Your task to perform on an android device: turn on showing notifications on the lock screen Image 0: 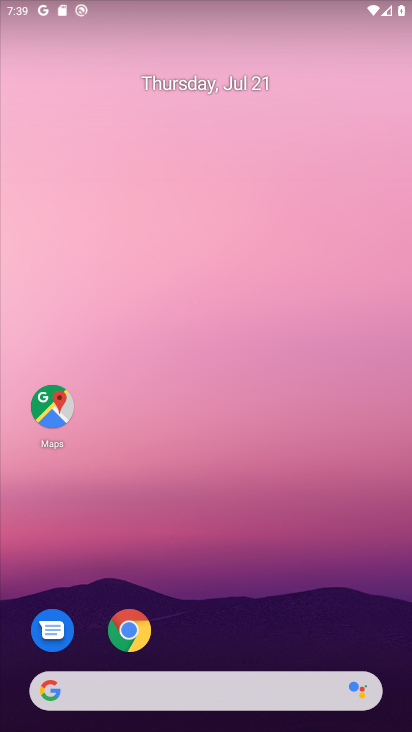
Step 0: drag from (175, 657) to (88, 114)
Your task to perform on an android device: turn on showing notifications on the lock screen Image 1: 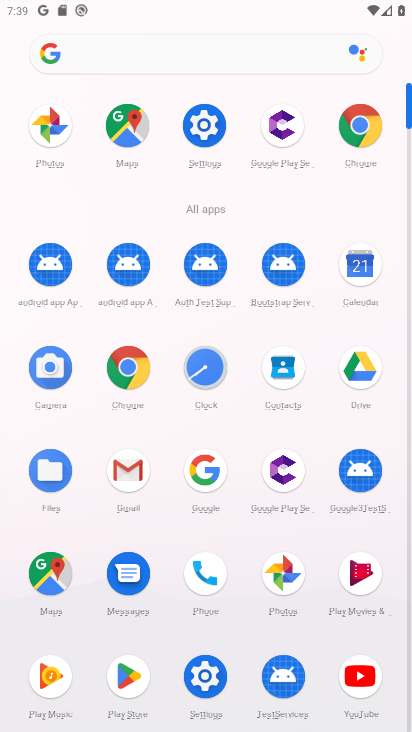
Step 1: click (203, 671)
Your task to perform on an android device: turn on showing notifications on the lock screen Image 2: 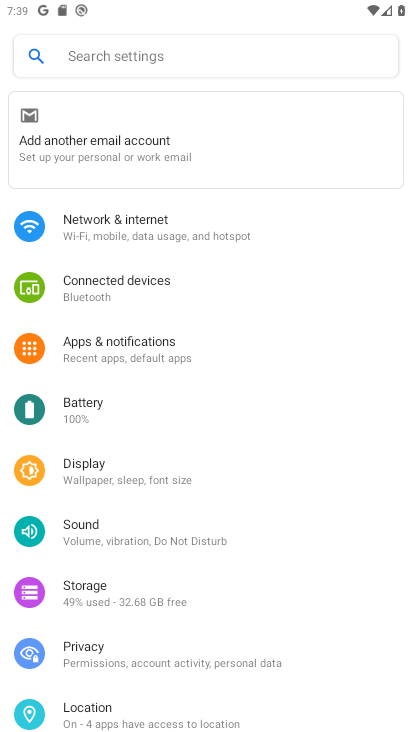
Step 2: click (113, 343)
Your task to perform on an android device: turn on showing notifications on the lock screen Image 3: 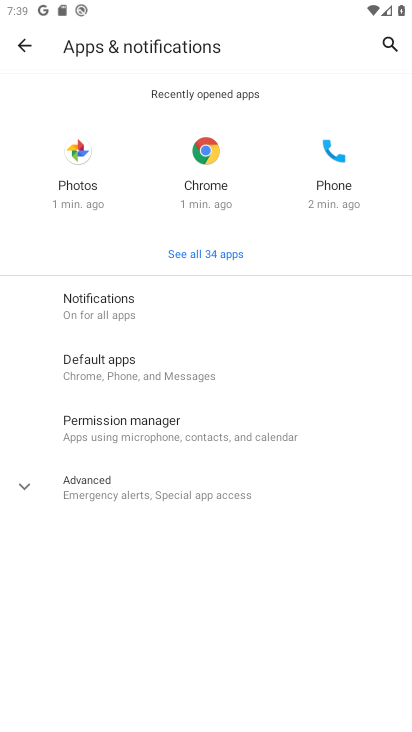
Step 3: click (116, 301)
Your task to perform on an android device: turn on showing notifications on the lock screen Image 4: 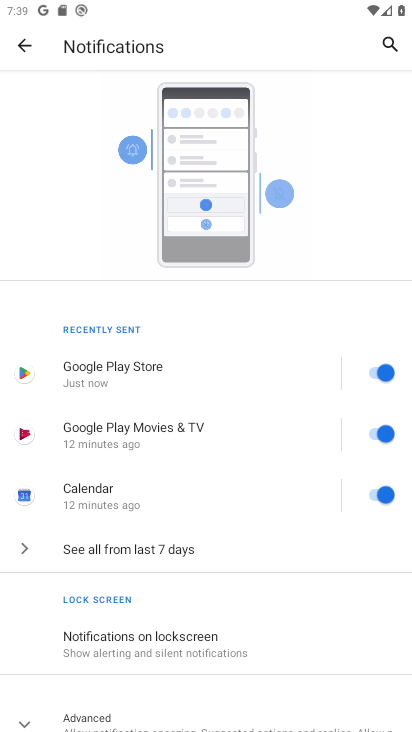
Step 4: click (87, 634)
Your task to perform on an android device: turn on showing notifications on the lock screen Image 5: 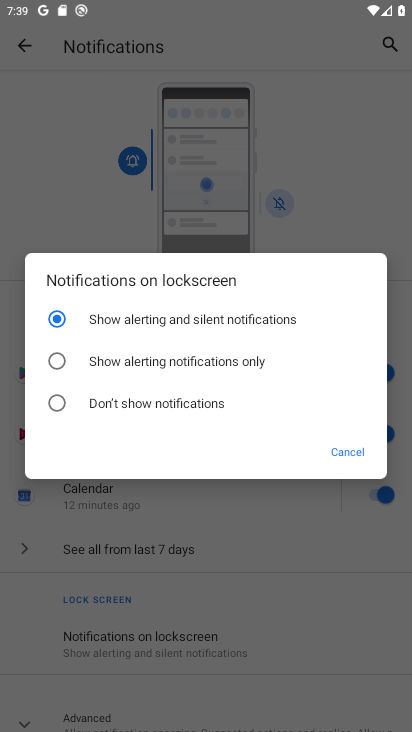
Step 5: click (91, 325)
Your task to perform on an android device: turn on showing notifications on the lock screen Image 6: 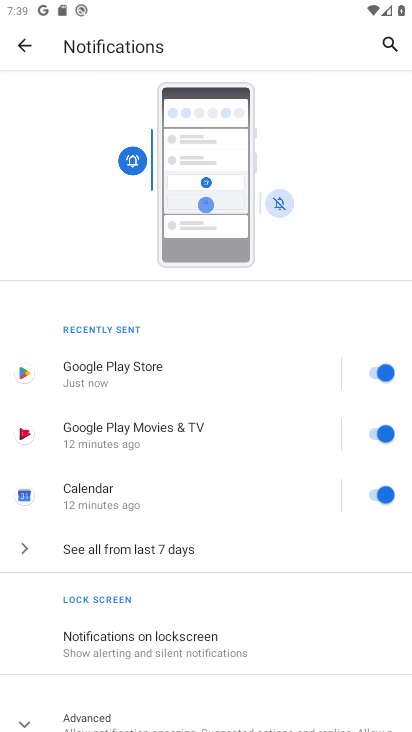
Step 6: task complete